Your task to perform on an android device: Go to wifi settings Image 0: 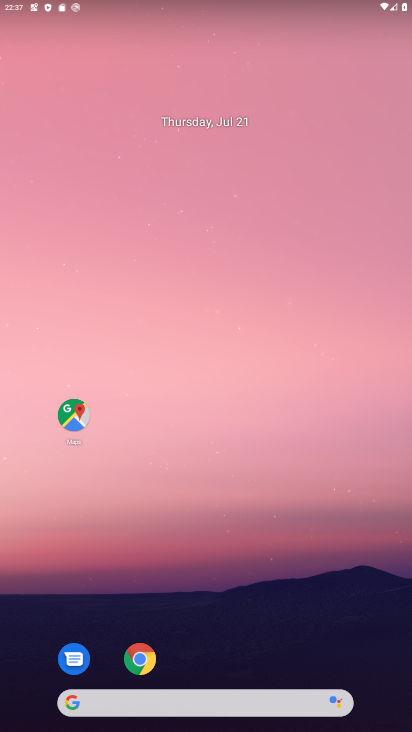
Step 0: drag from (314, 621) to (271, 163)
Your task to perform on an android device: Go to wifi settings Image 1: 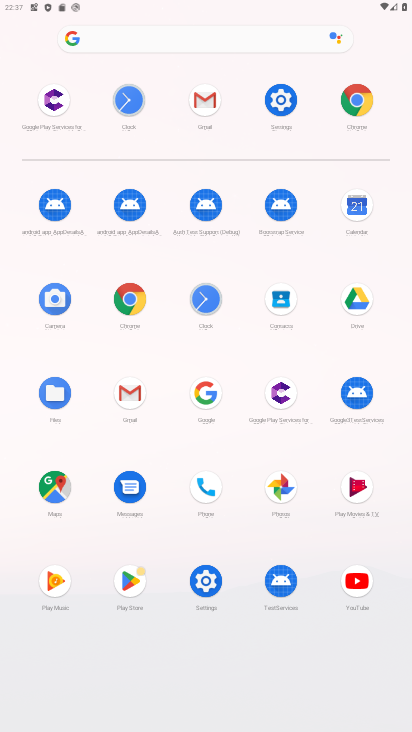
Step 1: click (290, 95)
Your task to perform on an android device: Go to wifi settings Image 2: 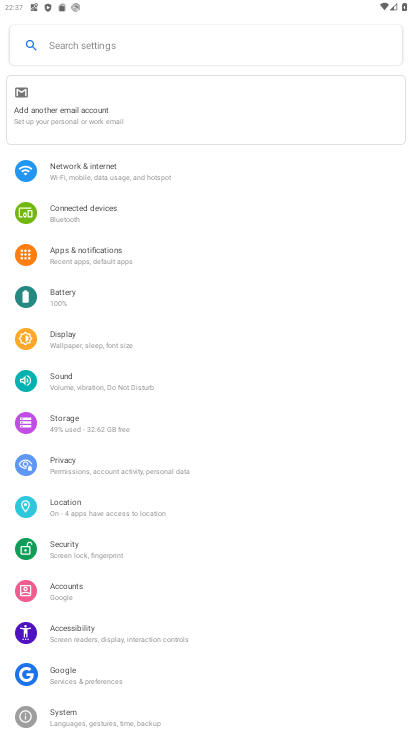
Step 2: click (95, 172)
Your task to perform on an android device: Go to wifi settings Image 3: 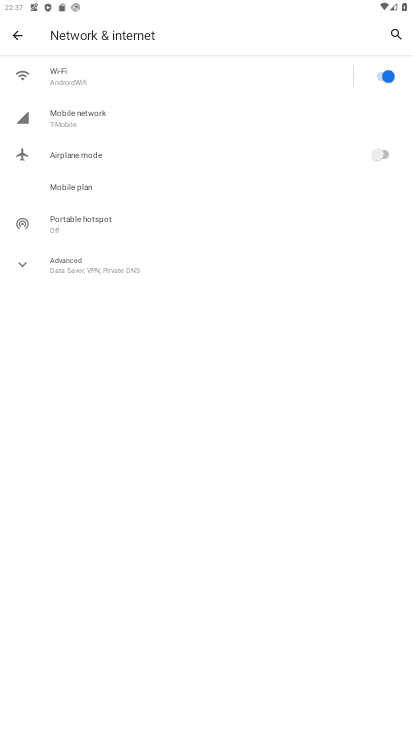
Step 3: click (269, 77)
Your task to perform on an android device: Go to wifi settings Image 4: 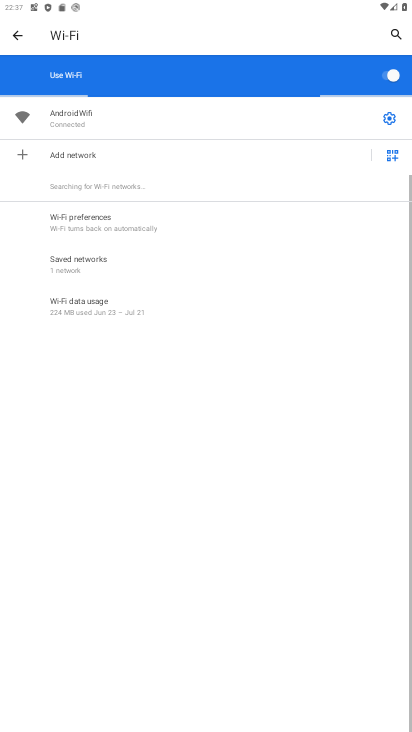
Step 4: click (389, 114)
Your task to perform on an android device: Go to wifi settings Image 5: 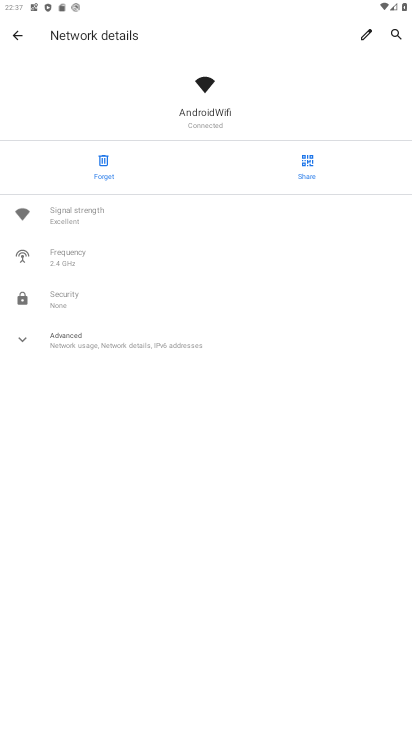
Step 5: task complete